Your task to perform on an android device: snooze an email in the gmail app Image 0: 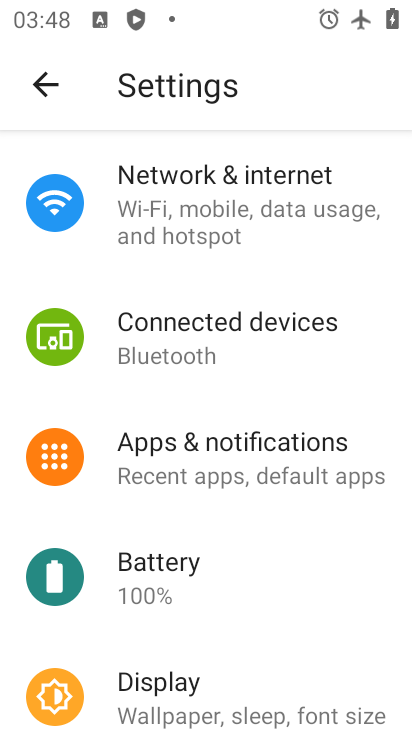
Step 0: press home button
Your task to perform on an android device: snooze an email in the gmail app Image 1: 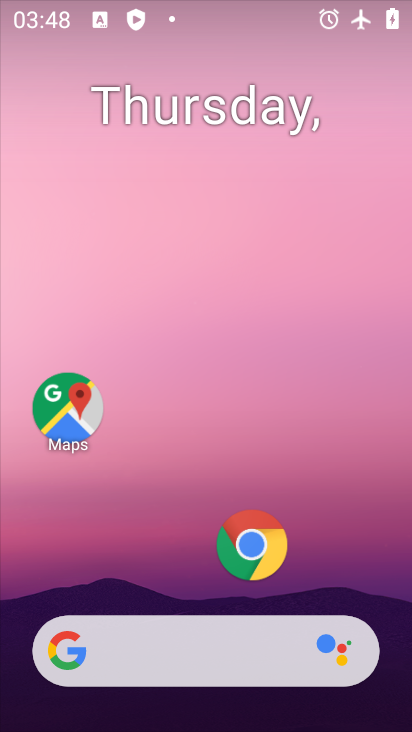
Step 1: drag from (314, 660) to (365, 20)
Your task to perform on an android device: snooze an email in the gmail app Image 2: 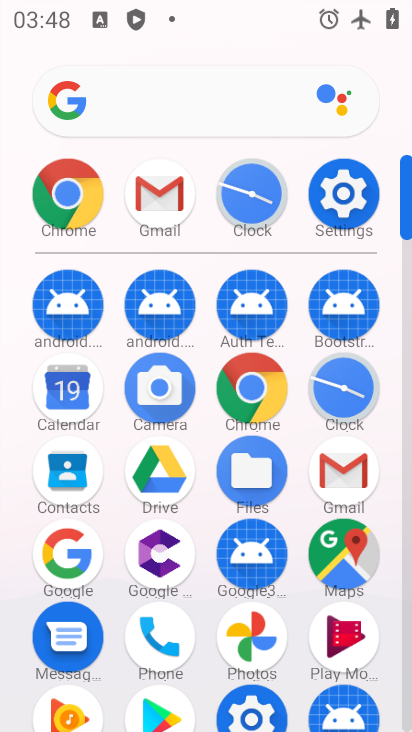
Step 2: click (360, 469)
Your task to perform on an android device: snooze an email in the gmail app Image 3: 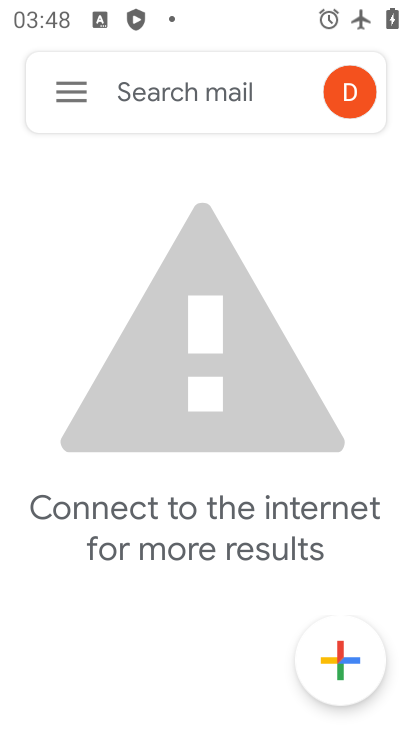
Step 3: click (46, 83)
Your task to perform on an android device: snooze an email in the gmail app Image 4: 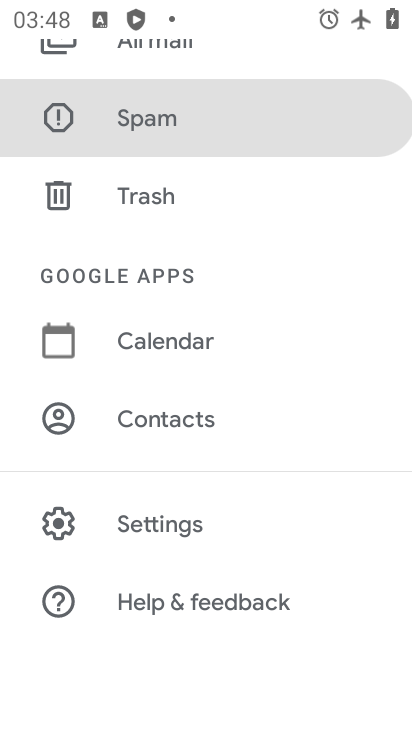
Step 4: drag from (167, 126) to (235, 685)
Your task to perform on an android device: snooze an email in the gmail app Image 5: 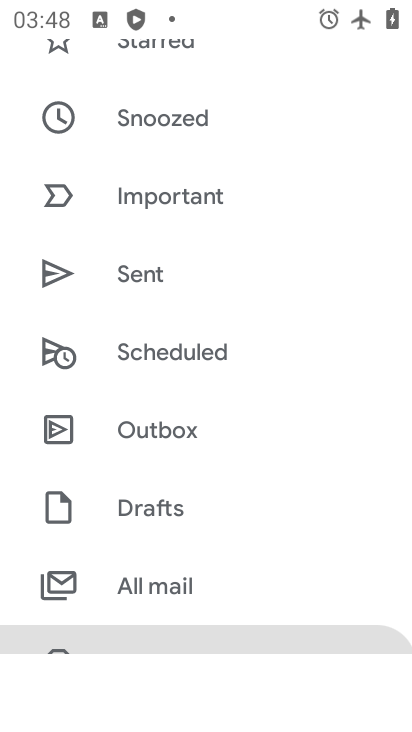
Step 5: click (169, 125)
Your task to perform on an android device: snooze an email in the gmail app Image 6: 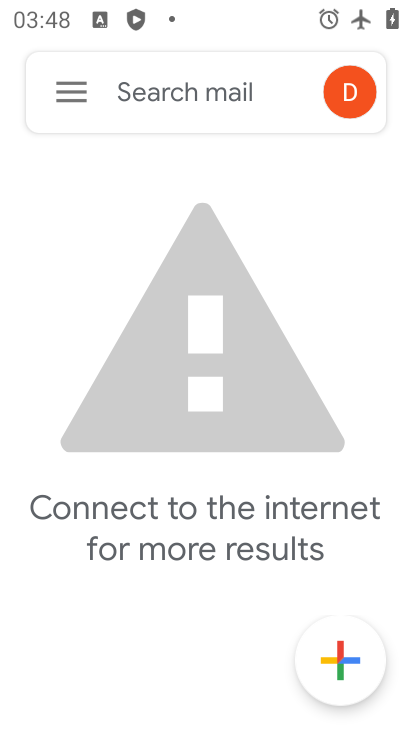
Step 6: task complete